Your task to perform on an android device: Search for "bose soundlink" on target, select the first entry, add it to the cart, then select checkout. Image 0: 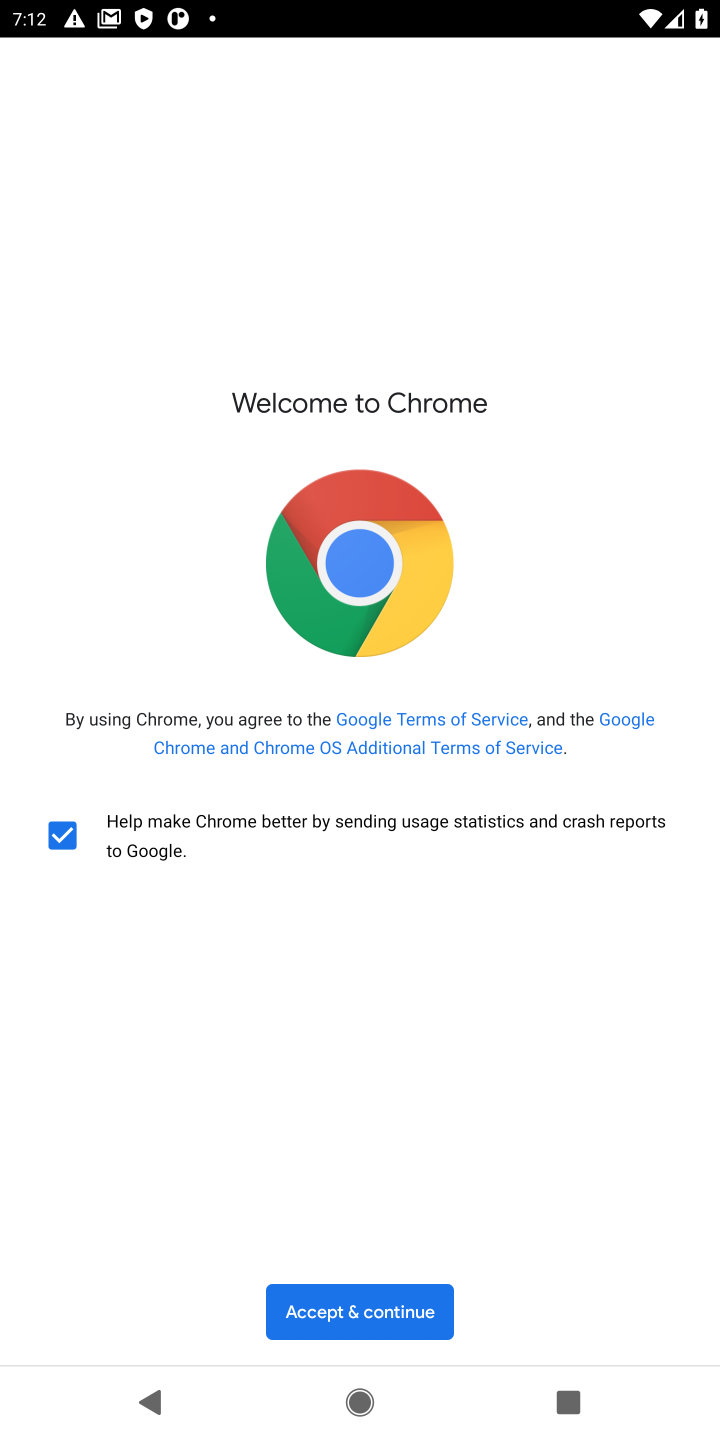
Step 0: press home button
Your task to perform on an android device: Search for "bose soundlink" on target, select the first entry, add it to the cart, then select checkout. Image 1: 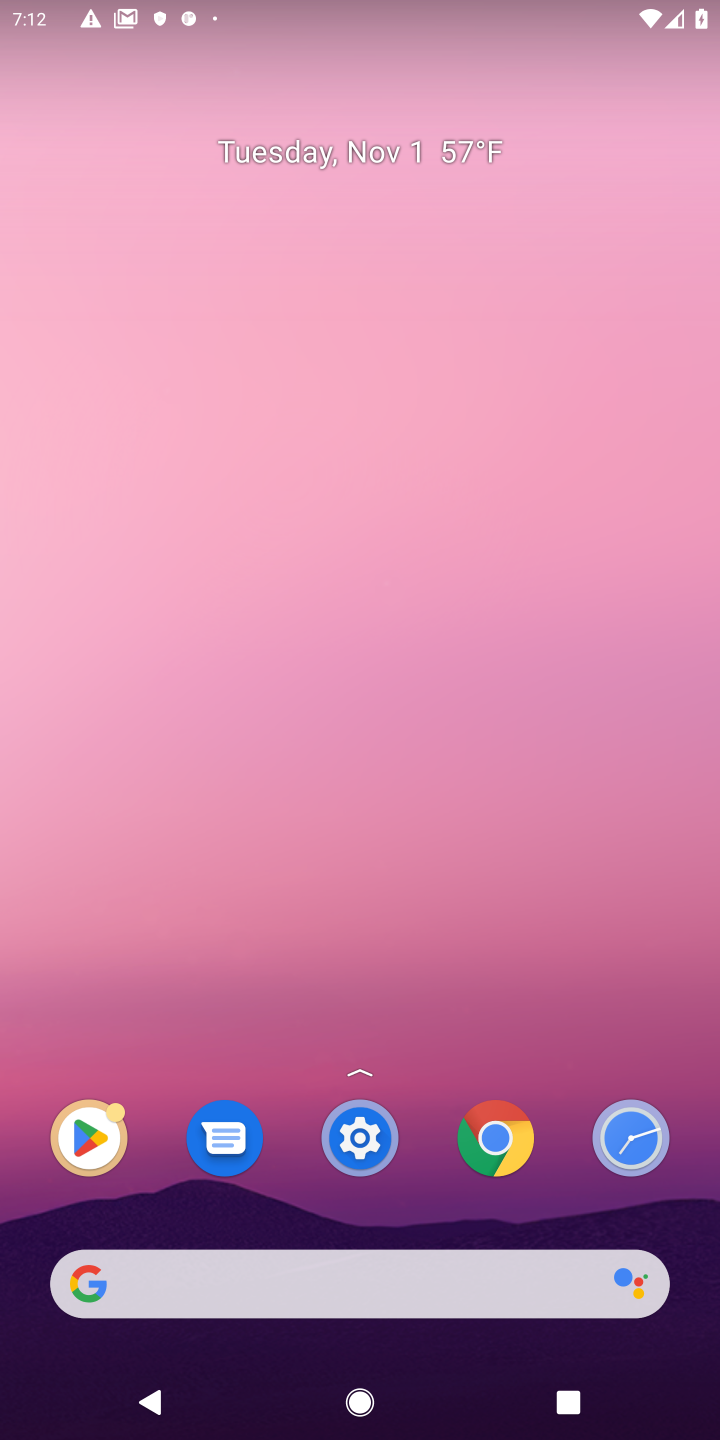
Step 1: click (489, 1160)
Your task to perform on an android device: Search for "bose soundlink" on target, select the first entry, add it to the cart, then select checkout. Image 2: 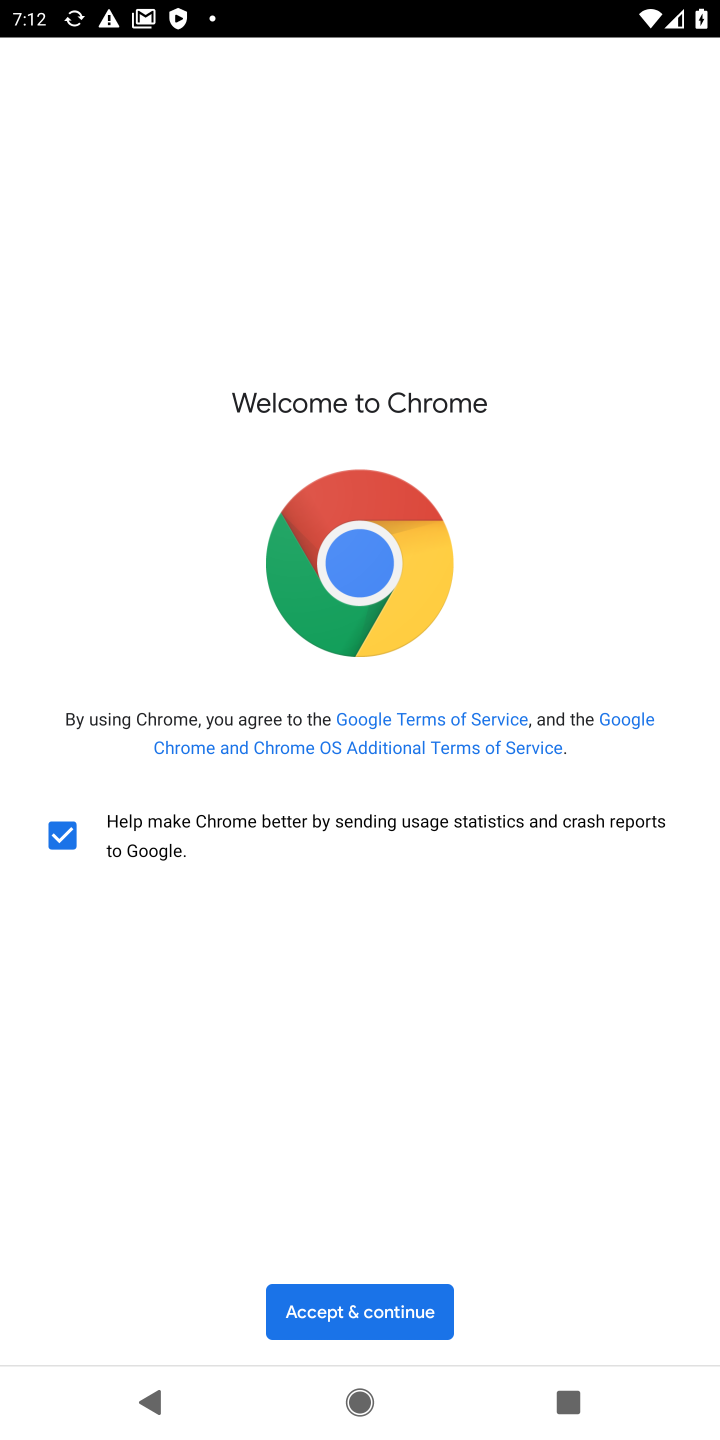
Step 2: click (368, 1311)
Your task to perform on an android device: Search for "bose soundlink" on target, select the first entry, add it to the cart, then select checkout. Image 3: 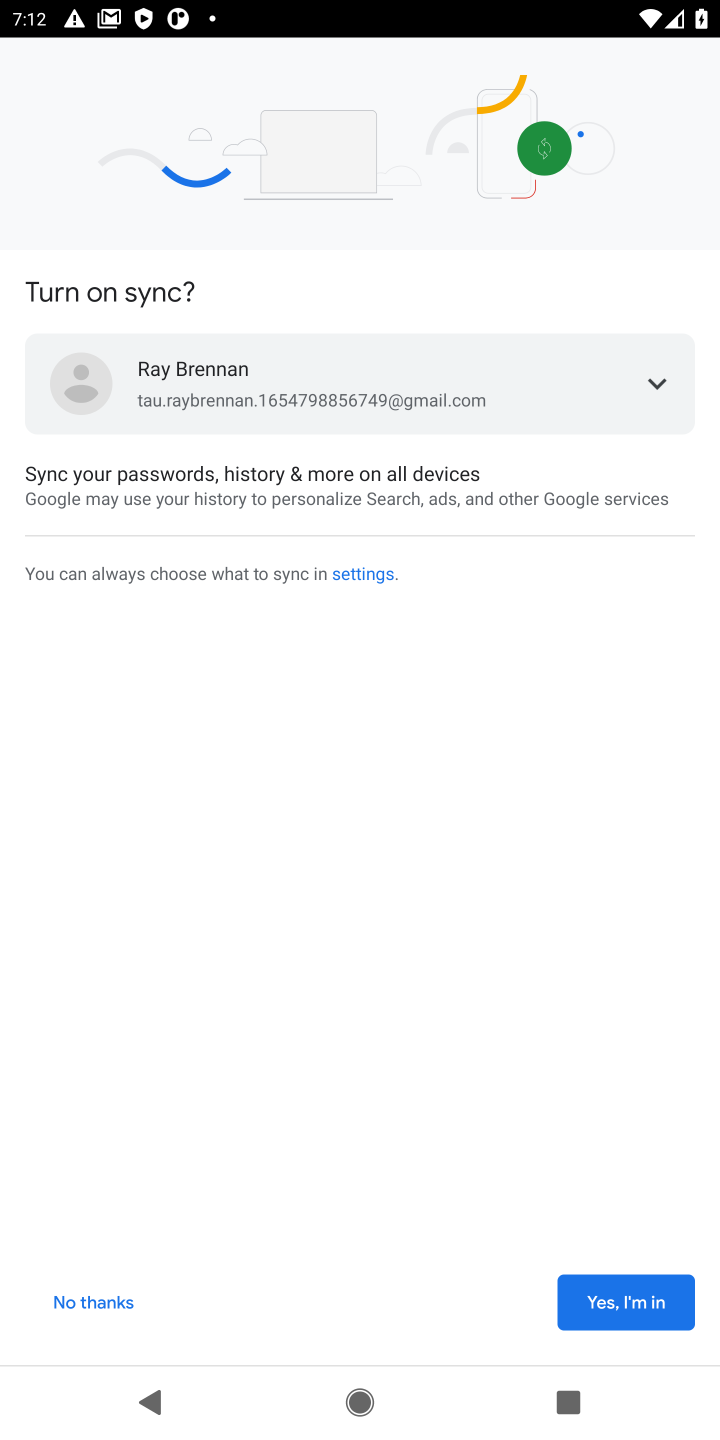
Step 3: click (67, 1299)
Your task to perform on an android device: Search for "bose soundlink" on target, select the first entry, add it to the cart, then select checkout. Image 4: 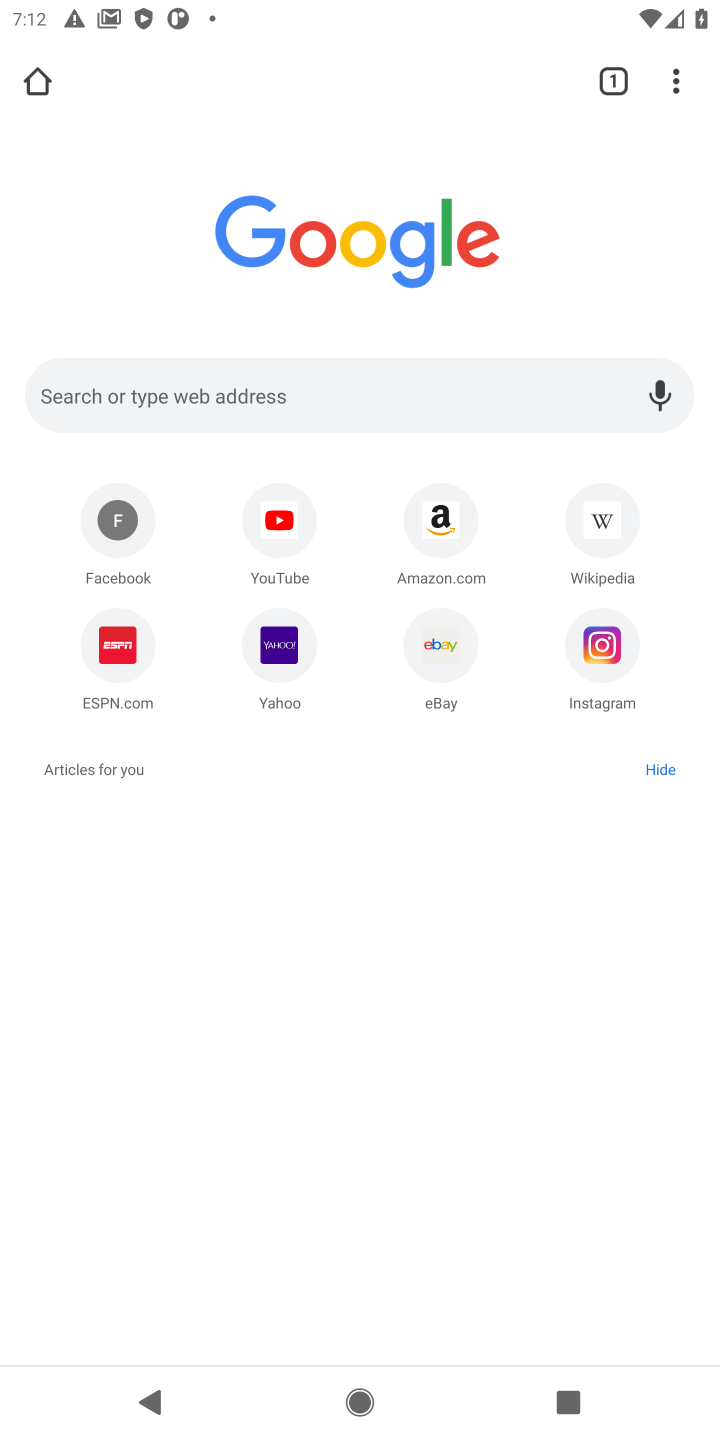
Step 4: click (199, 402)
Your task to perform on an android device: Search for "bose soundlink" on target, select the first entry, add it to the cart, then select checkout. Image 5: 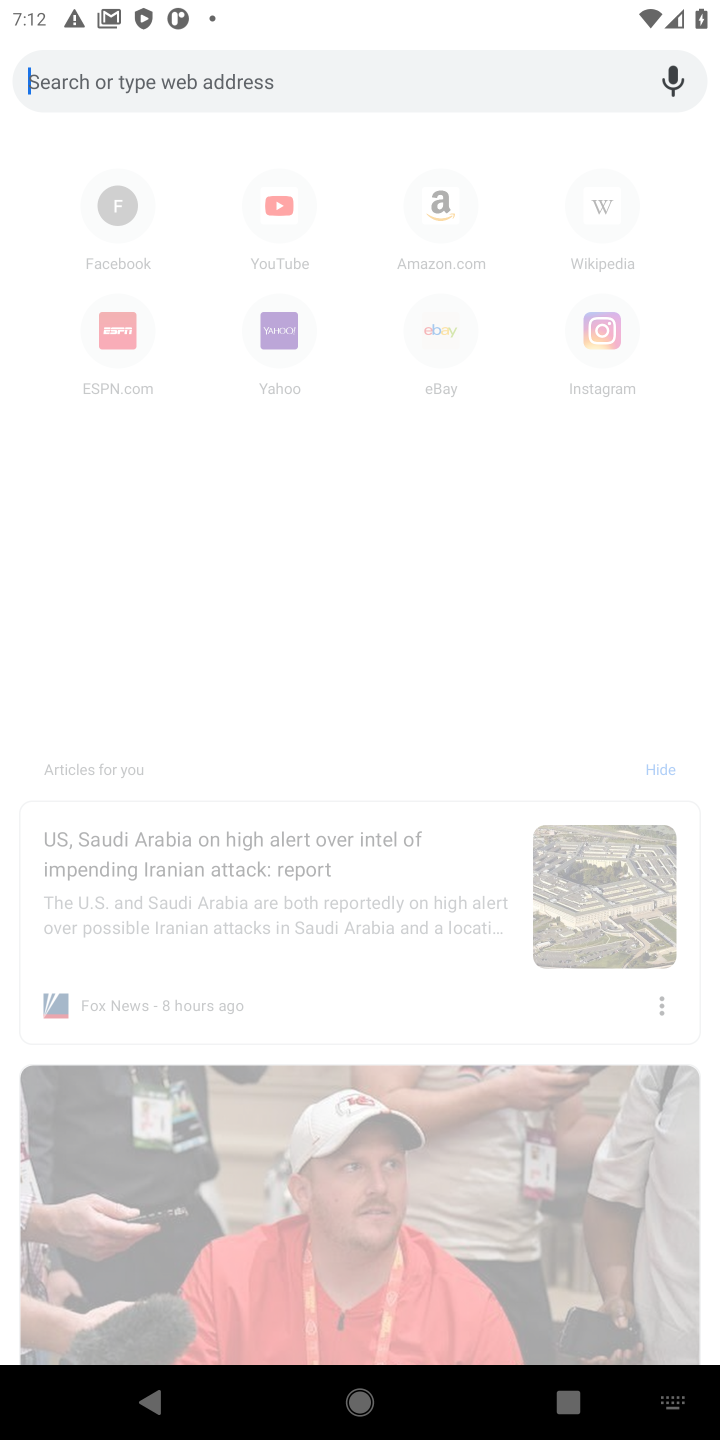
Step 5: type "target.com"
Your task to perform on an android device: Search for "bose soundlink" on target, select the first entry, add it to the cart, then select checkout. Image 6: 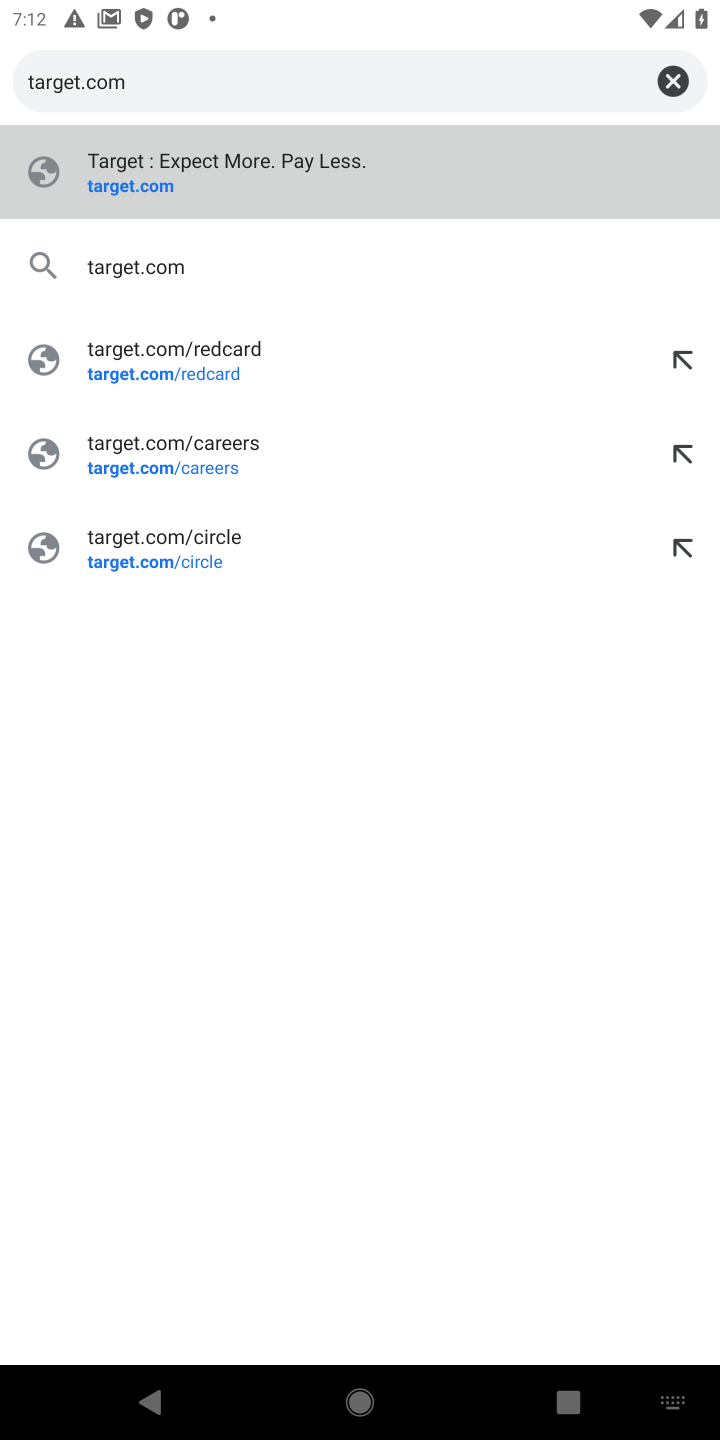
Step 6: click (163, 180)
Your task to perform on an android device: Search for "bose soundlink" on target, select the first entry, add it to the cart, then select checkout. Image 7: 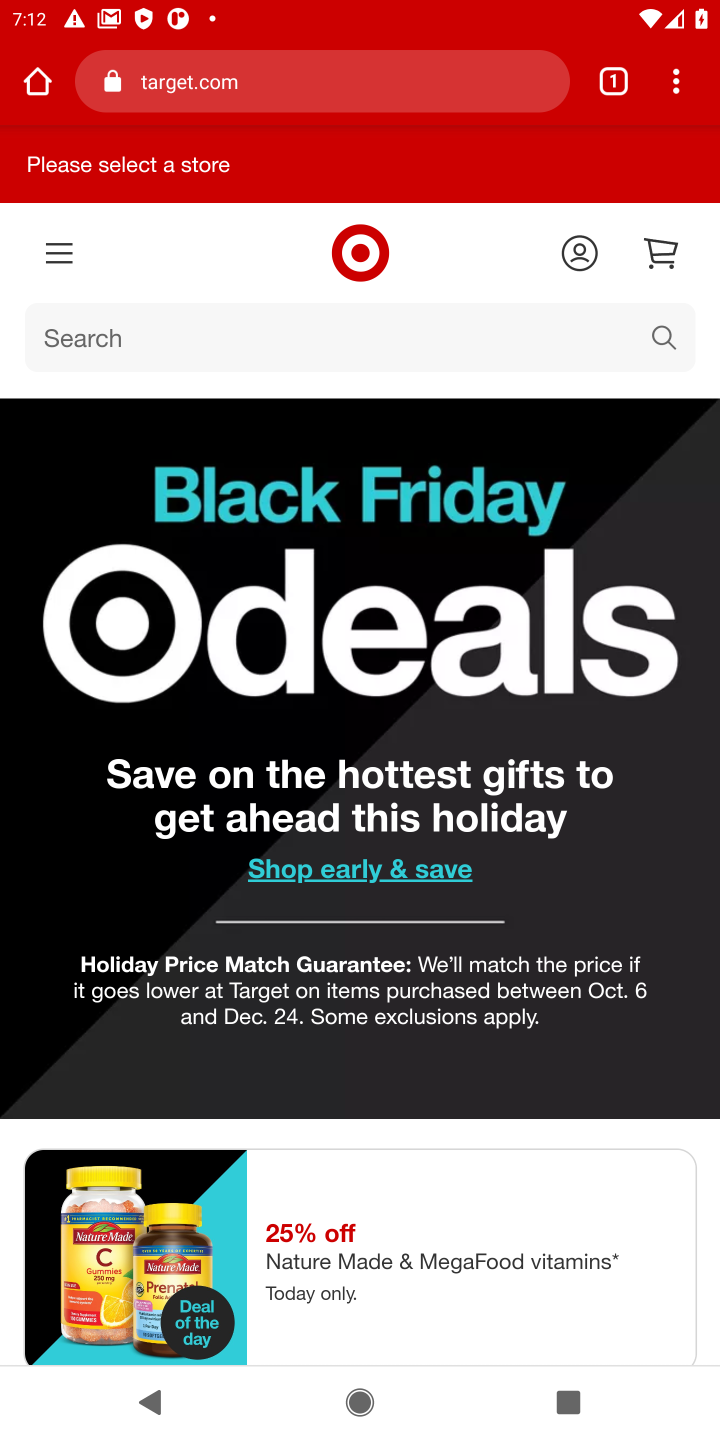
Step 7: click (643, 341)
Your task to perform on an android device: Search for "bose soundlink" on target, select the first entry, add it to the cart, then select checkout. Image 8: 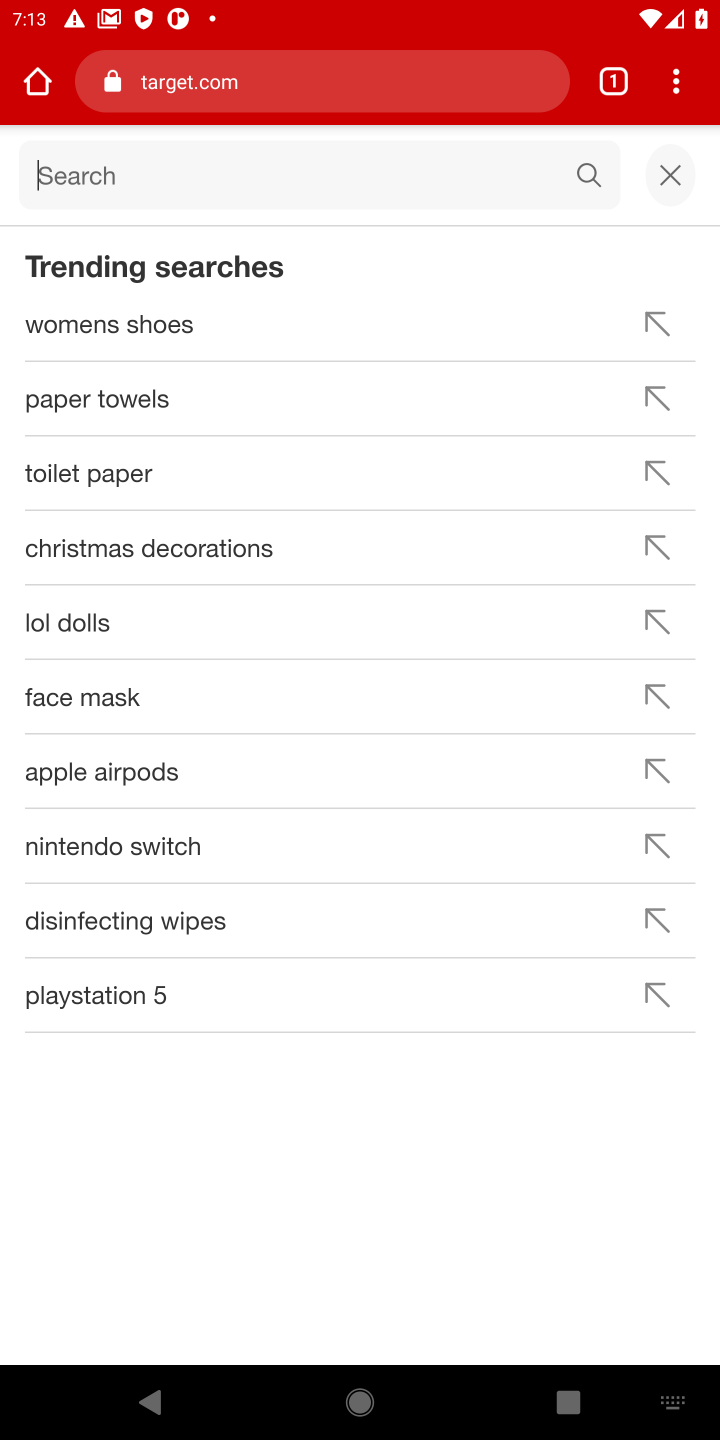
Step 8: type "bose soundlink"
Your task to perform on an android device: Search for "bose soundlink" on target, select the first entry, add it to the cart, then select checkout. Image 9: 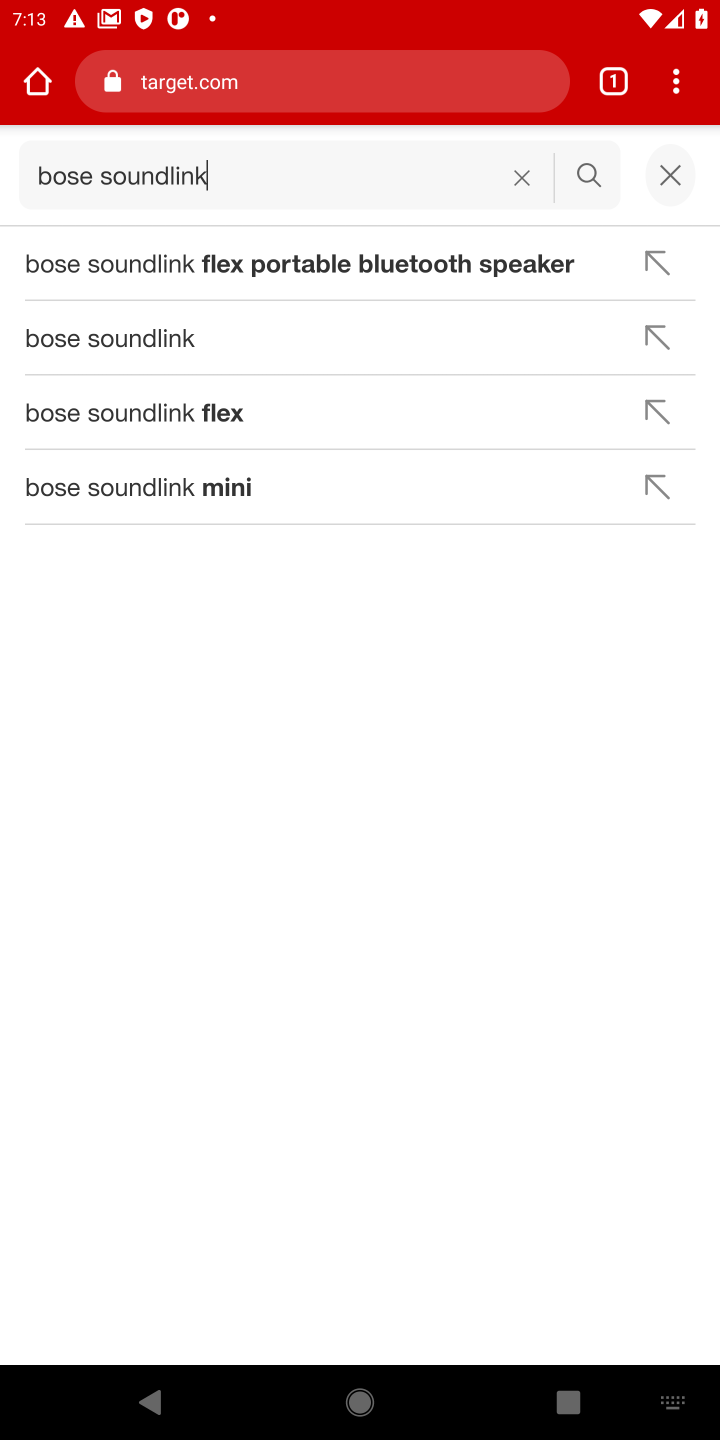
Step 9: click (122, 342)
Your task to perform on an android device: Search for "bose soundlink" on target, select the first entry, add it to the cart, then select checkout. Image 10: 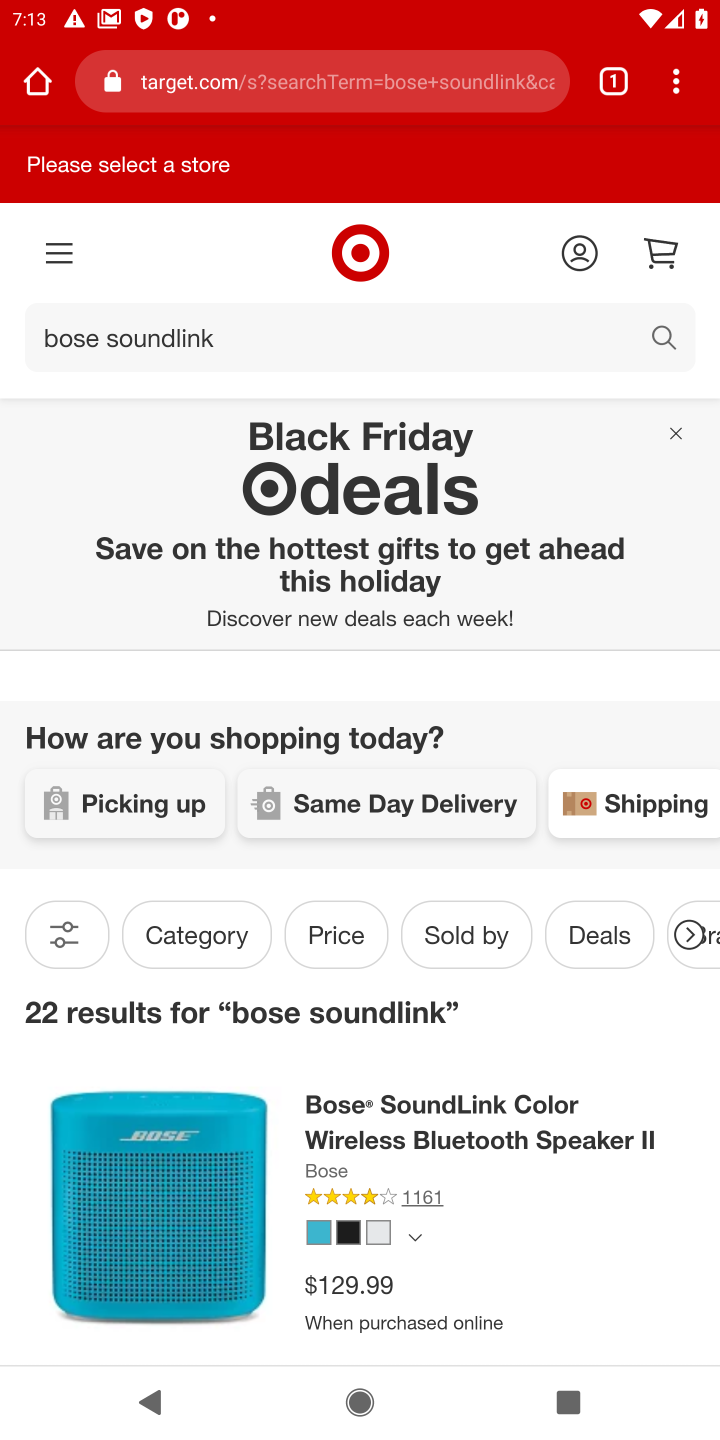
Step 10: click (276, 1206)
Your task to perform on an android device: Search for "bose soundlink" on target, select the first entry, add it to the cart, then select checkout. Image 11: 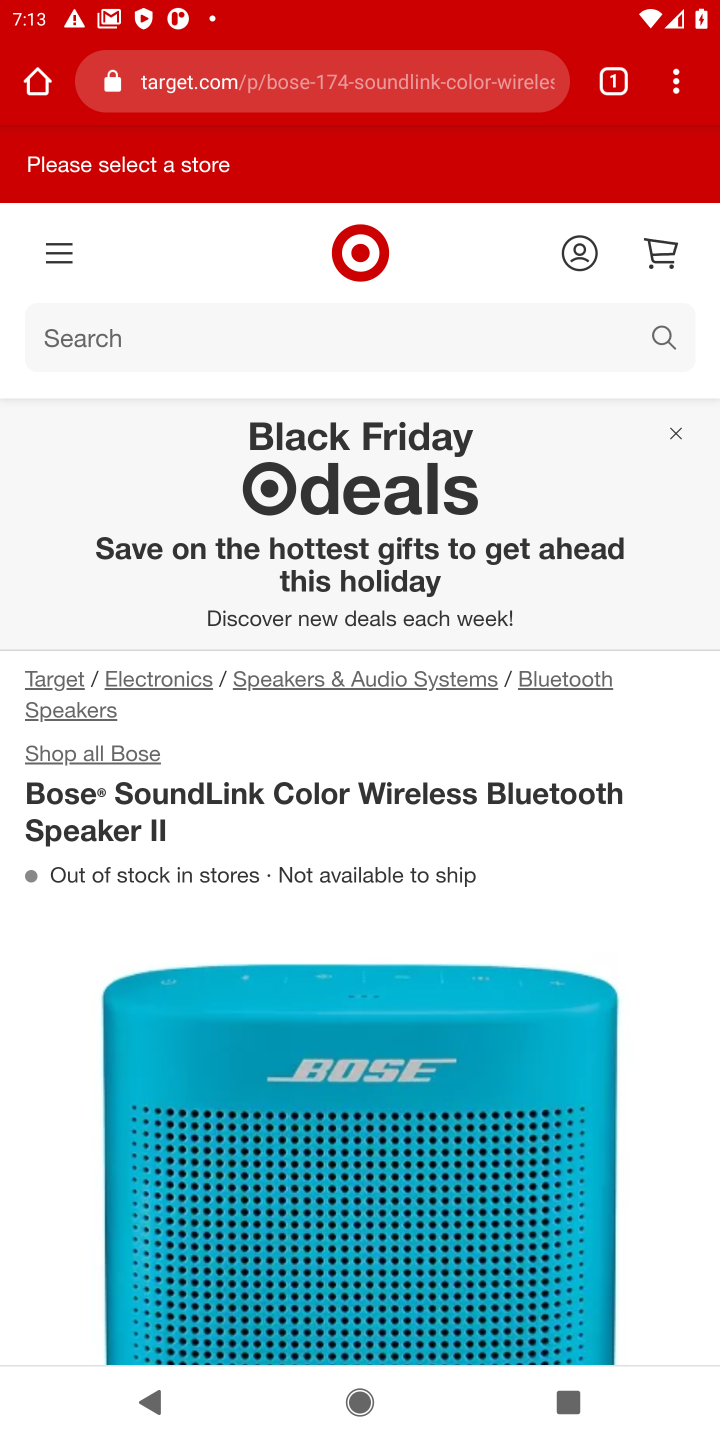
Step 11: drag from (326, 1160) to (321, 568)
Your task to perform on an android device: Search for "bose soundlink" on target, select the first entry, add it to the cart, then select checkout. Image 12: 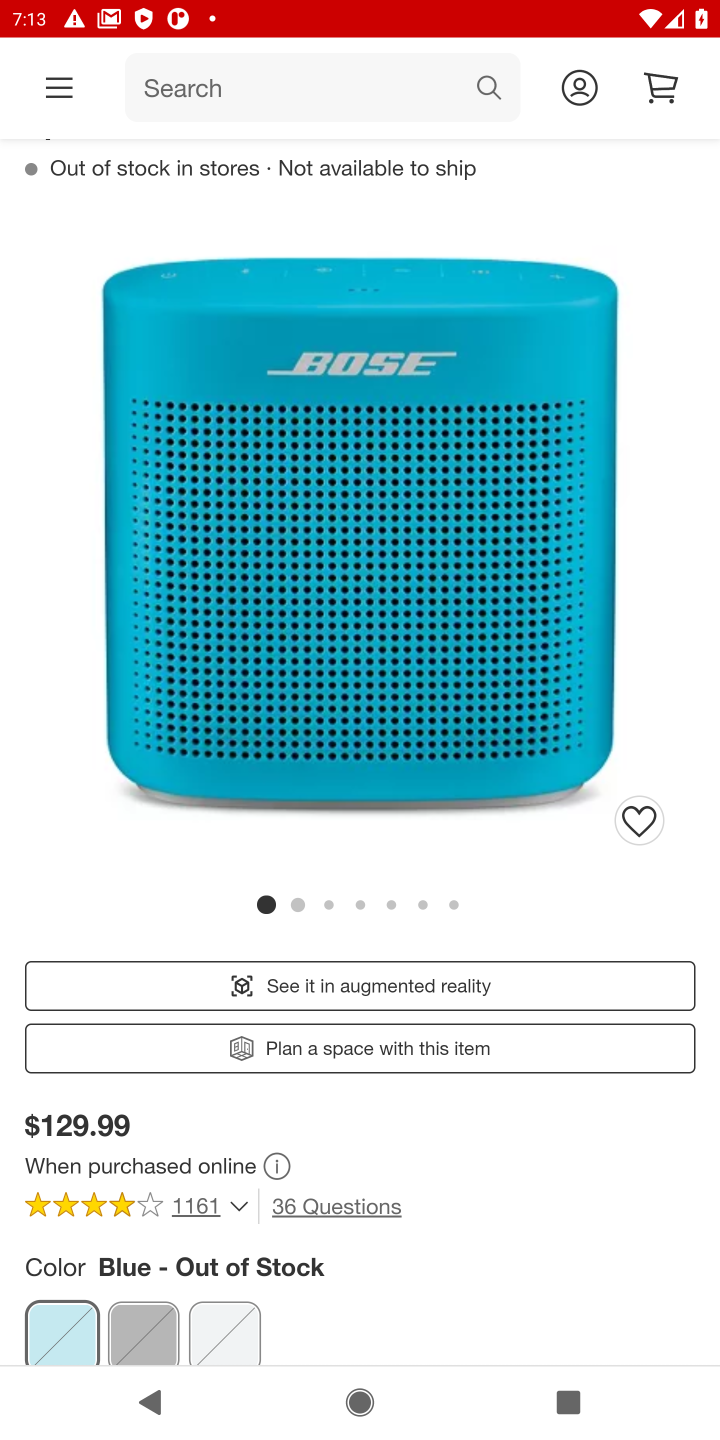
Step 12: drag from (305, 1013) to (300, 623)
Your task to perform on an android device: Search for "bose soundlink" on target, select the first entry, add it to the cart, then select checkout. Image 13: 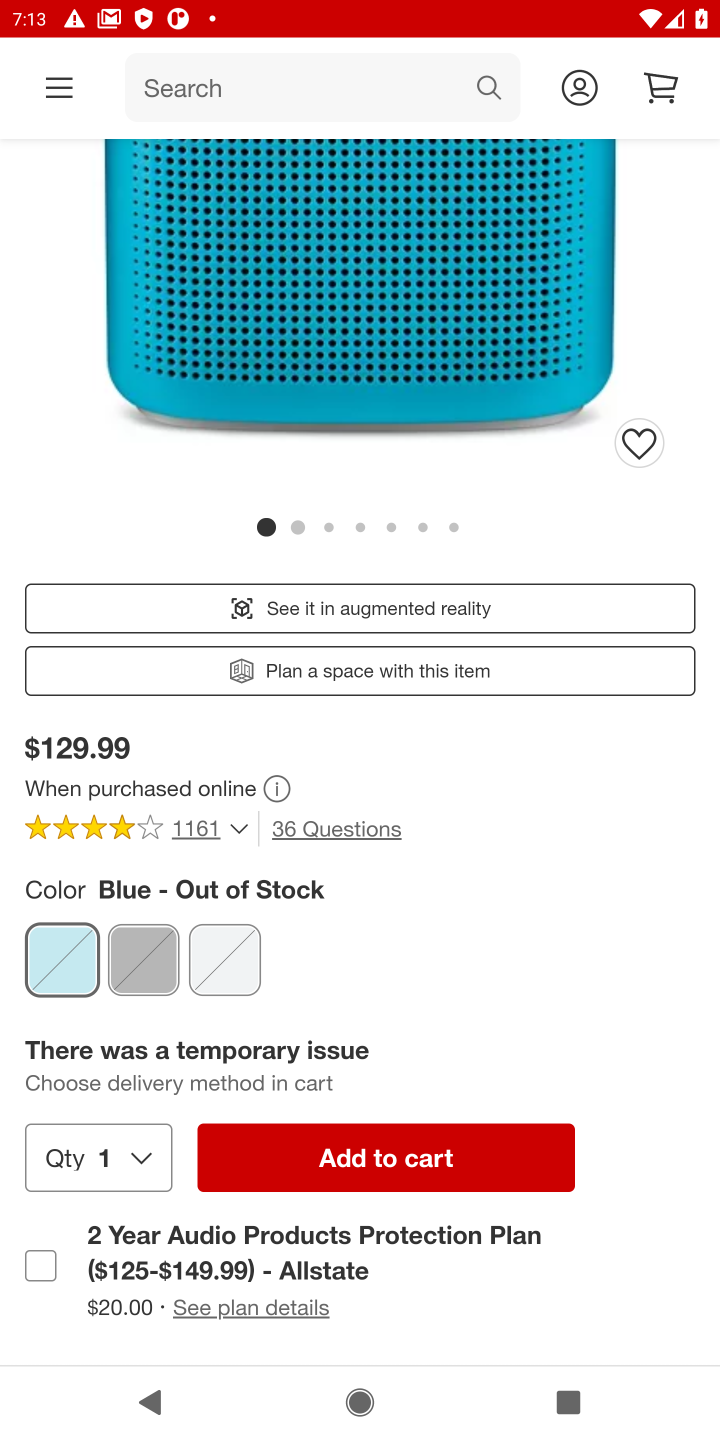
Step 13: click (346, 1177)
Your task to perform on an android device: Search for "bose soundlink" on target, select the first entry, add it to the cart, then select checkout. Image 14: 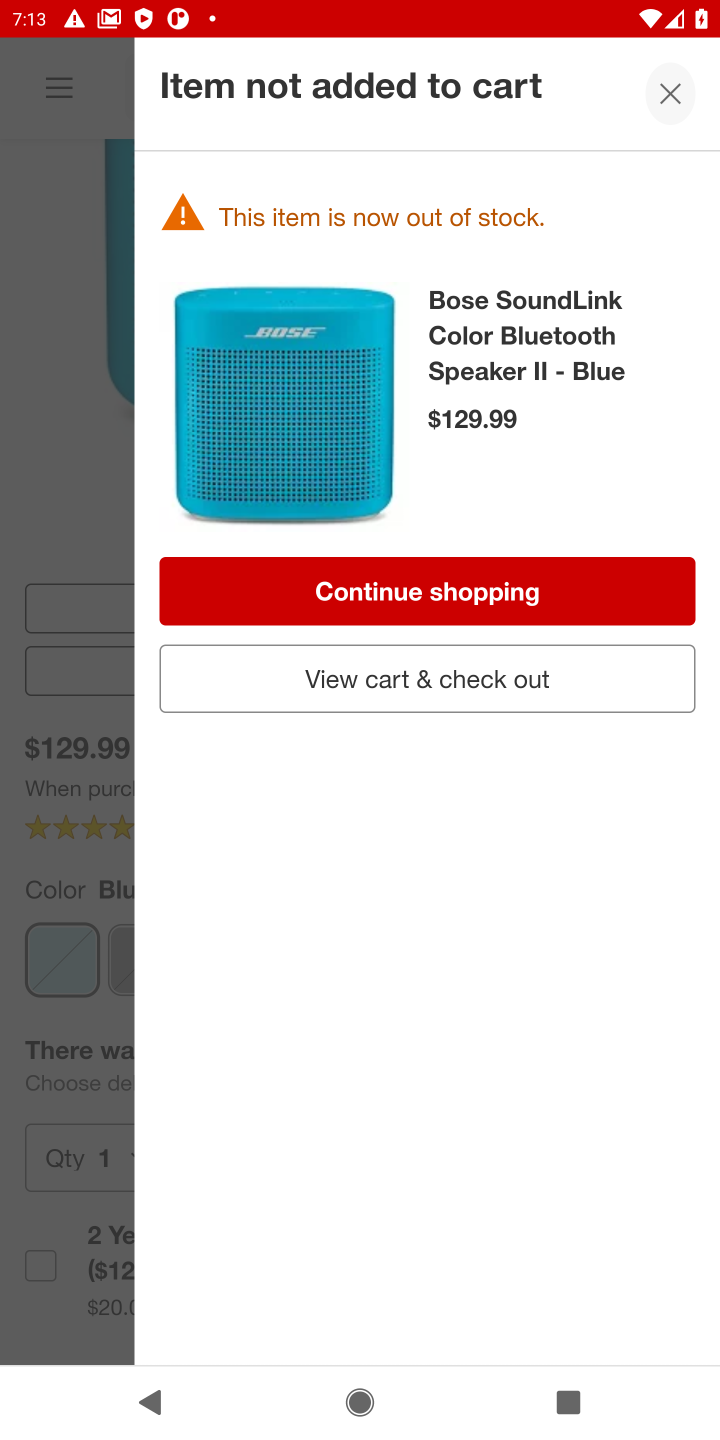
Step 14: click (382, 687)
Your task to perform on an android device: Search for "bose soundlink" on target, select the first entry, add it to the cart, then select checkout. Image 15: 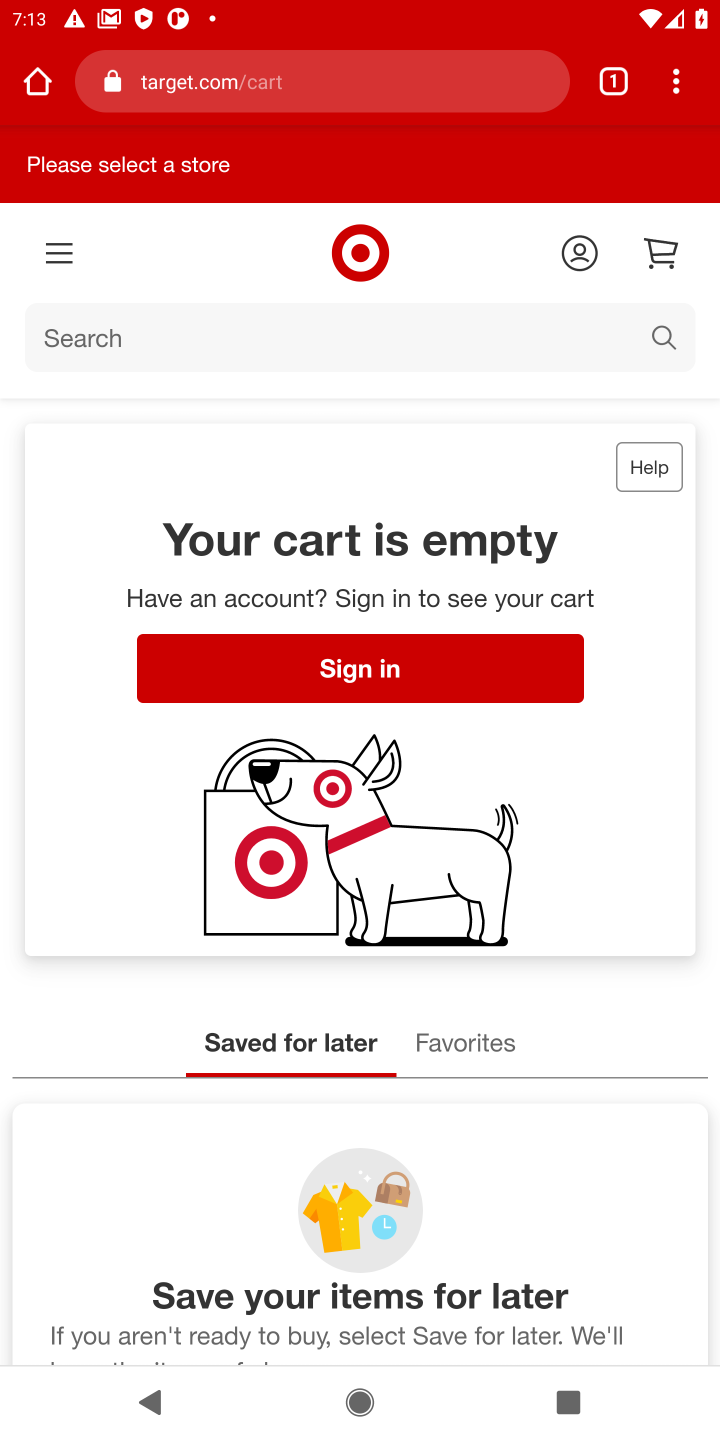
Step 15: task complete